Your task to perform on an android device: open app "Gmail" (install if not already installed) Image 0: 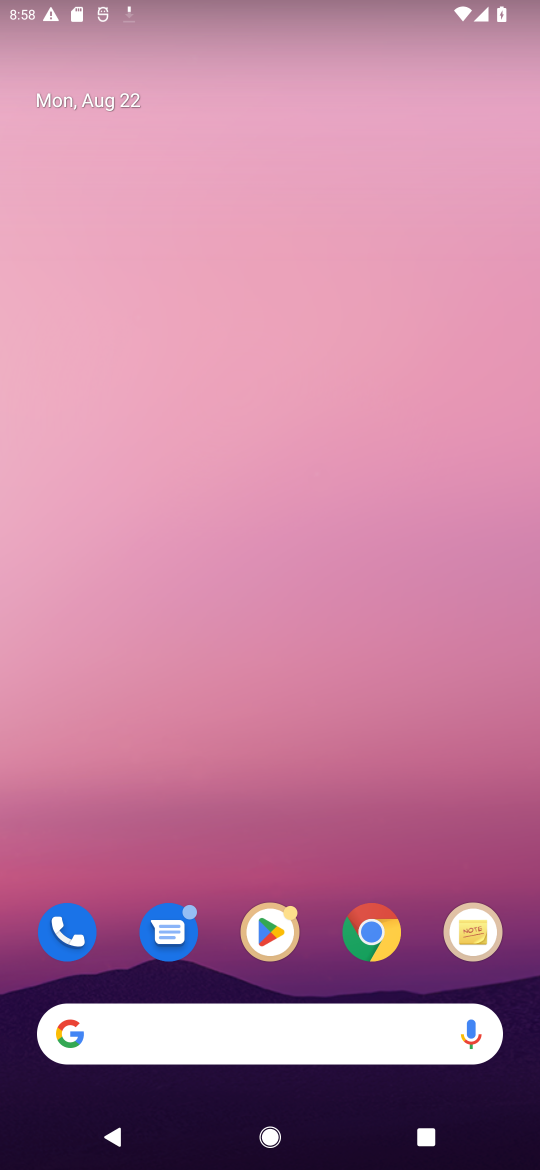
Step 0: click (264, 942)
Your task to perform on an android device: open app "Gmail" (install if not already installed) Image 1: 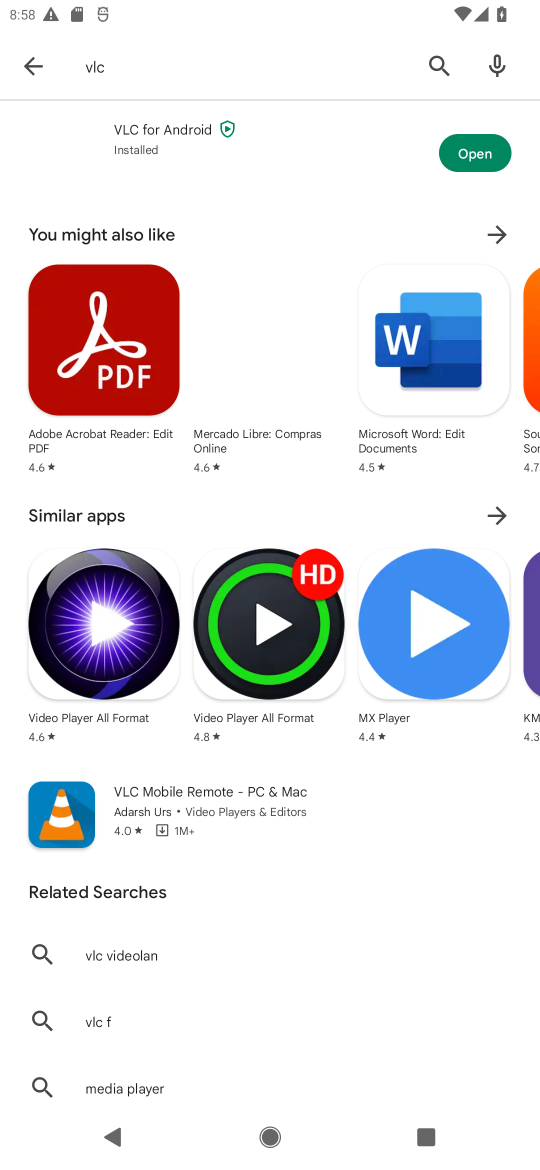
Step 1: click (443, 76)
Your task to perform on an android device: open app "Gmail" (install if not already installed) Image 2: 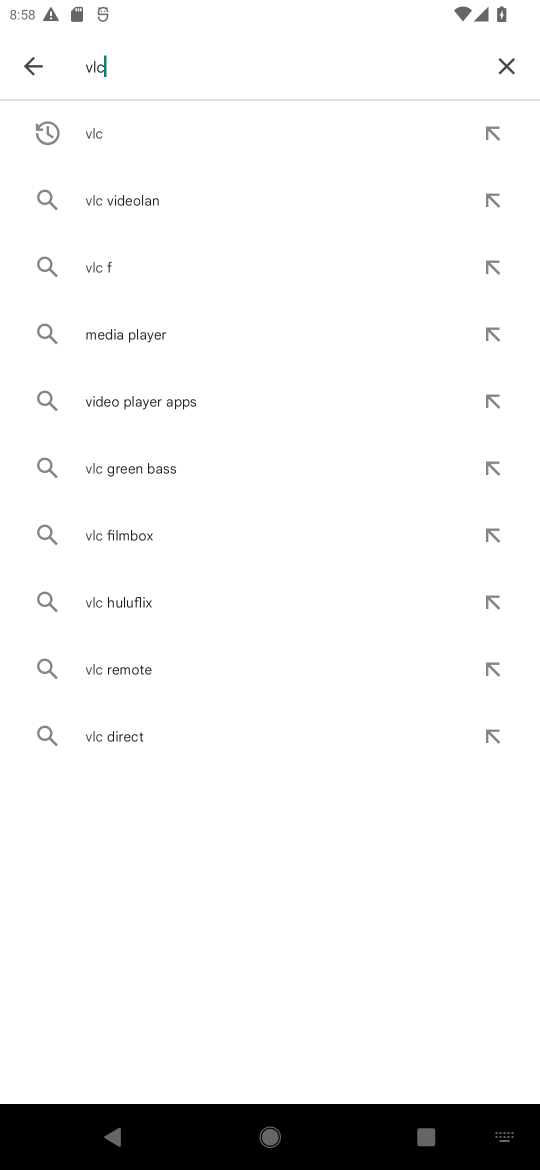
Step 2: press home button
Your task to perform on an android device: open app "Gmail" (install if not already installed) Image 3: 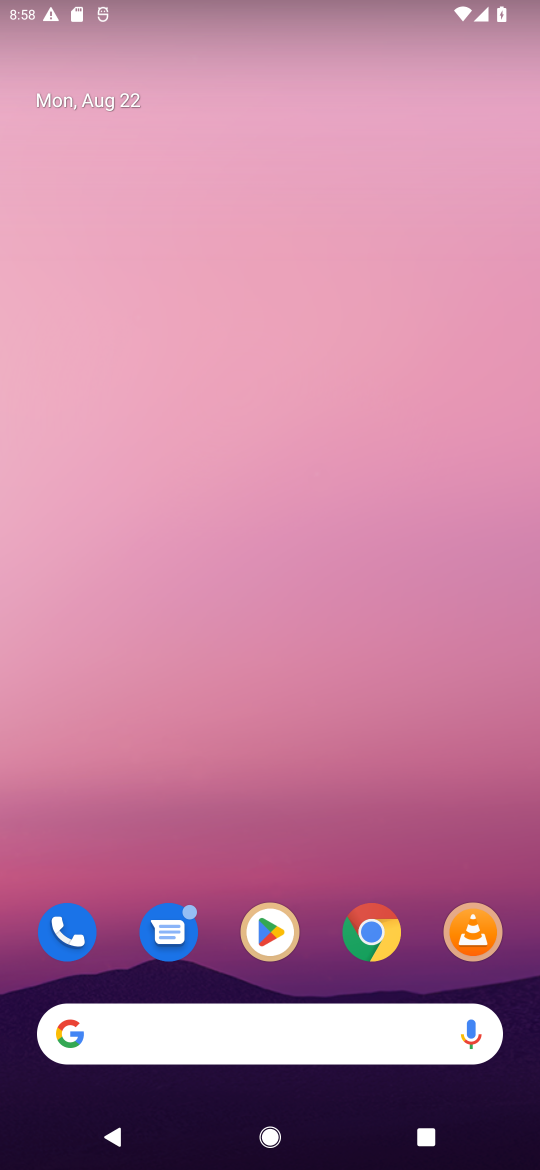
Step 3: drag from (317, 988) to (204, 114)
Your task to perform on an android device: open app "Gmail" (install if not already installed) Image 4: 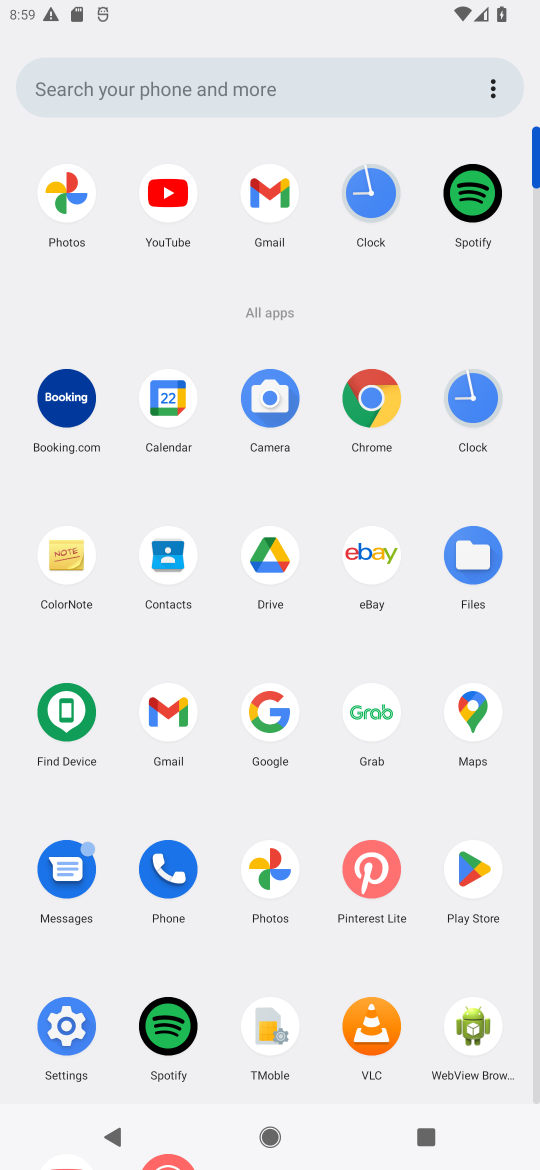
Step 4: click (186, 711)
Your task to perform on an android device: open app "Gmail" (install if not already installed) Image 5: 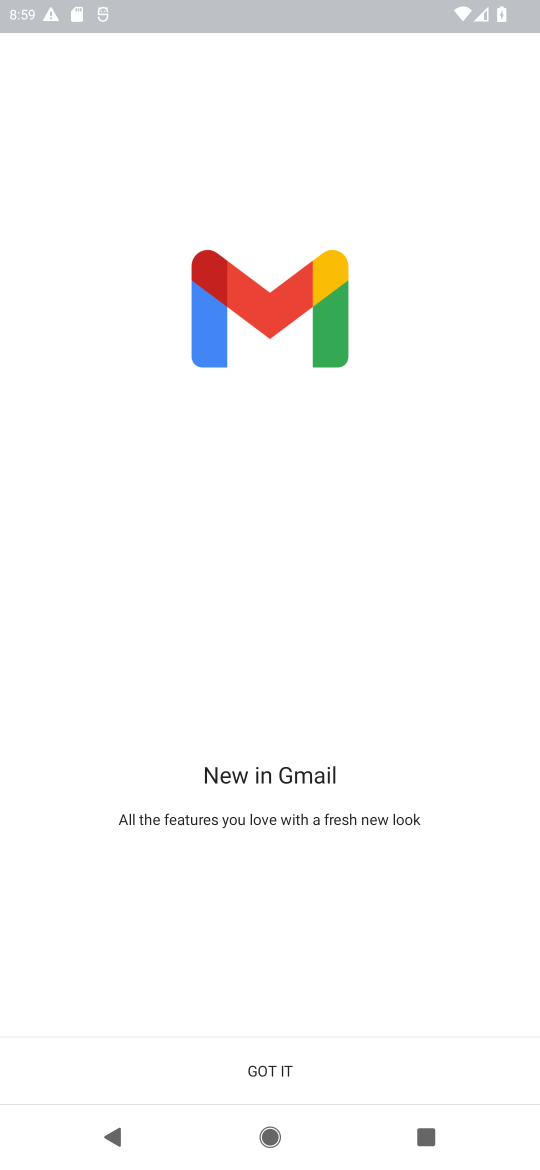
Step 5: click (314, 1049)
Your task to perform on an android device: open app "Gmail" (install if not already installed) Image 6: 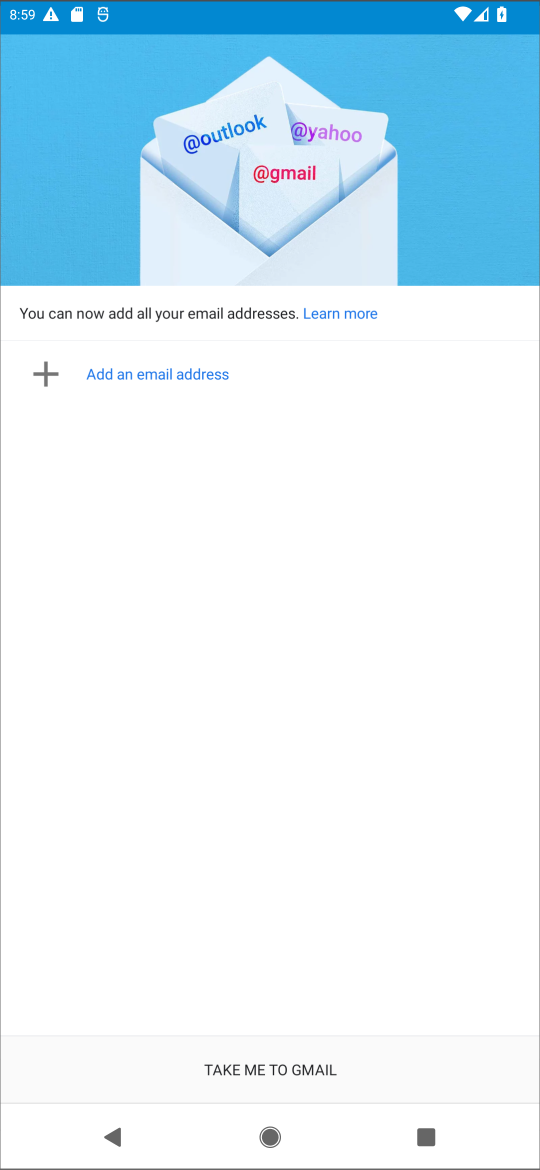
Step 6: task complete